Your task to perform on an android device: turn on wifi Image 0: 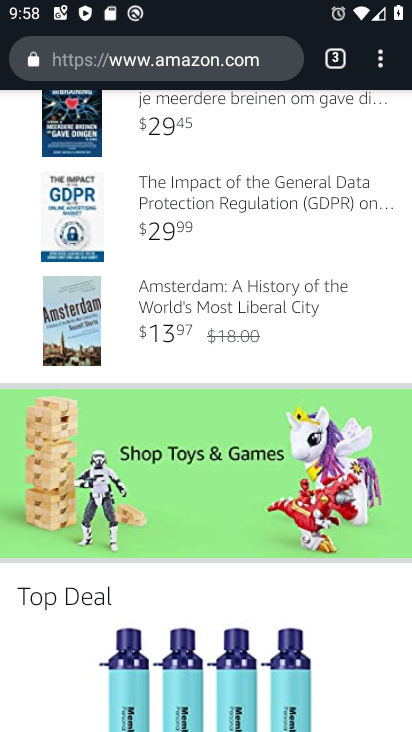
Step 0: drag from (150, 530) to (245, 87)
Your task to perform on an android device: turn on wifi Image 1: 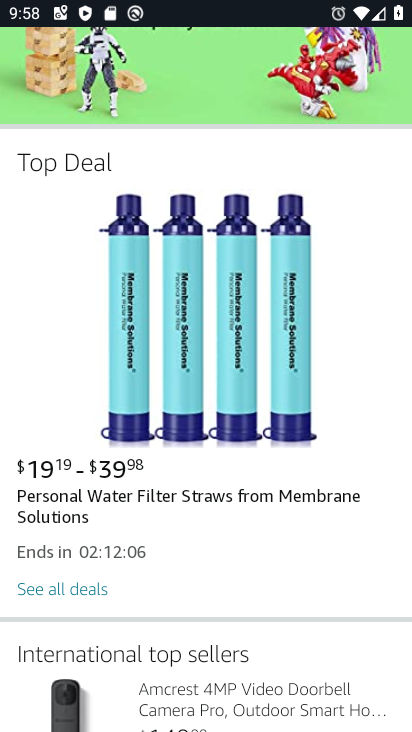
Step 1: press home button
Your task to perform on an android device: turn on wifi Image 2: 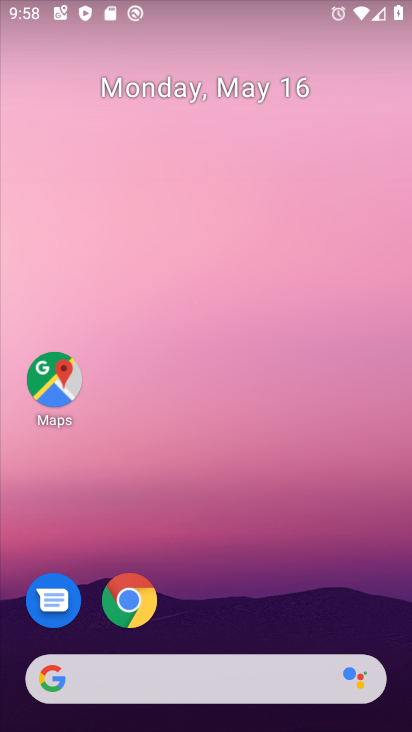
Step 2: drag from (195, 605) to (305, 108)
Your task to perform on an android device: turn on wifi Image 3: 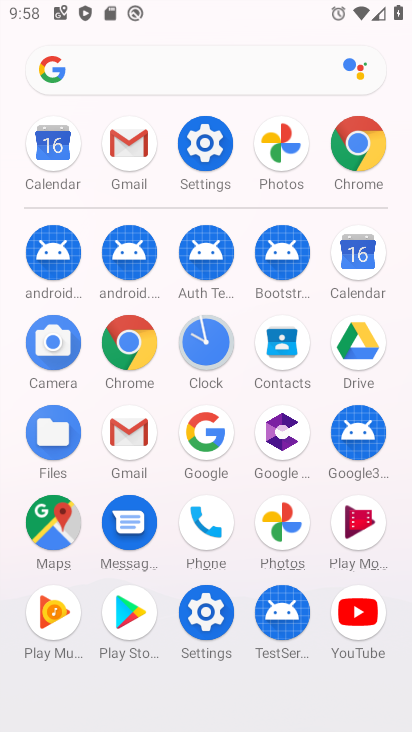
Step 3: click (180, 142)
Your task to perform on an android device: turn on wifi Image 4: 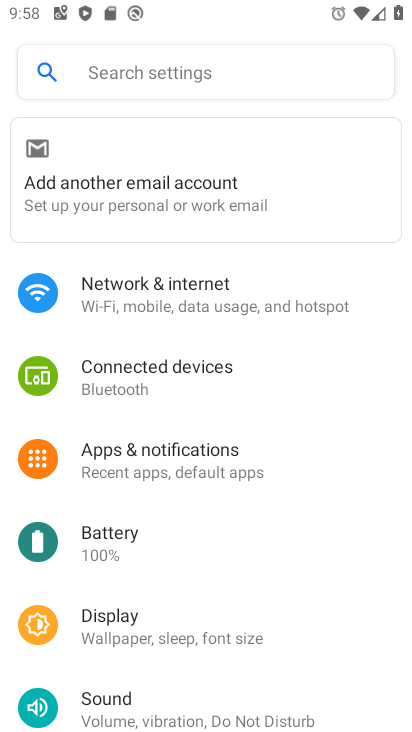
Step 4: click (166, 300)
Your task to perform on an android device: turn on wifi Image 5: 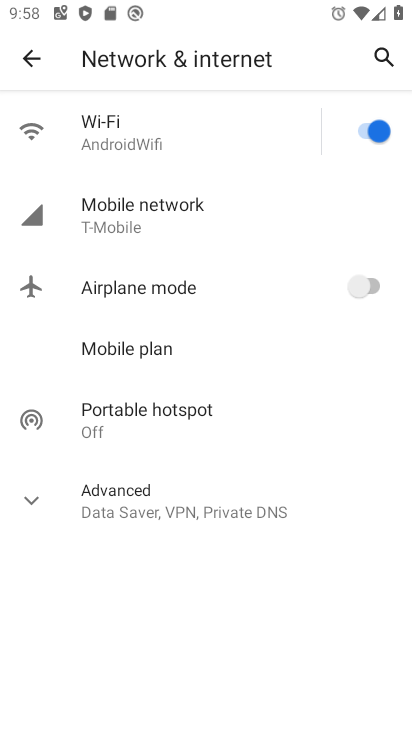
Step 5: click (238, 120)
Your task to perform on an android device: turn on wifi Image 6: 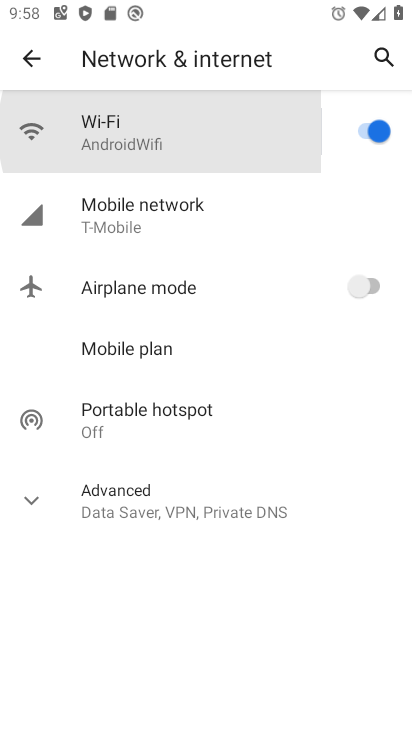
Step 6: click (238, 120)
Your task to perform on an android device: turn on wifi Image 7: 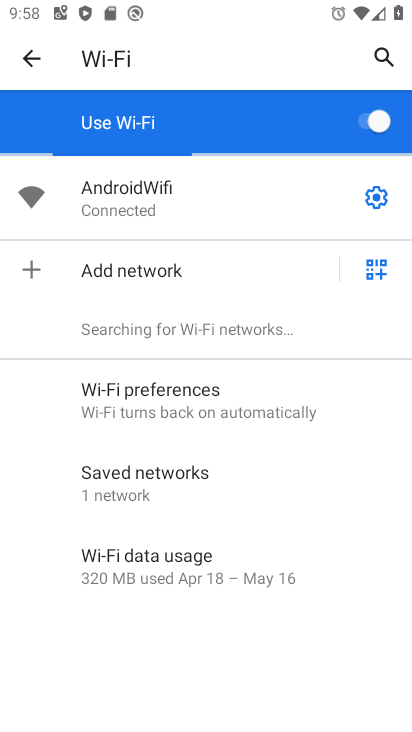
Step 7: task complete